Your task to perform on an android device: turn on bluetooth scan Image 0: 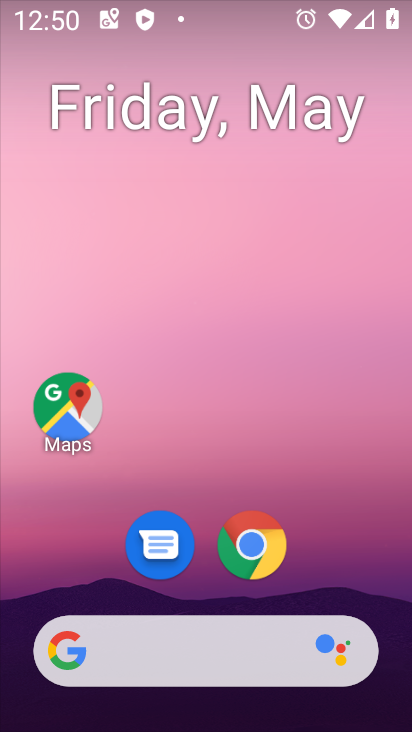
Step 0: drag from (324, 480) to (299, 220)
Your task to perform on an android device: turn on bluetooth scan Image 1: 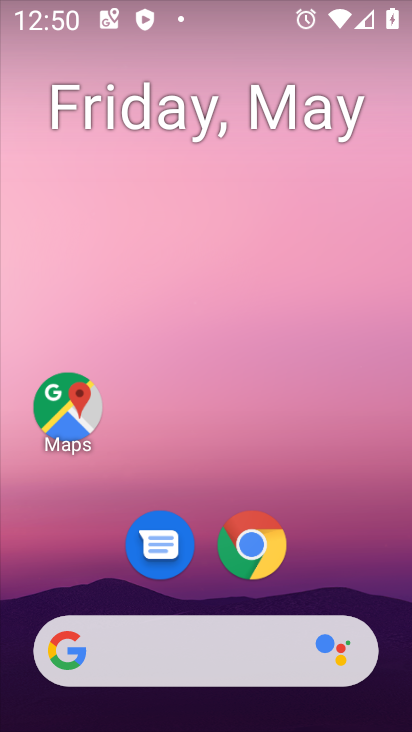
Step 1: drag from (296, 563) to (339, 96)
Your task to perform on an android device: turn on bluetooth scan Image 2: 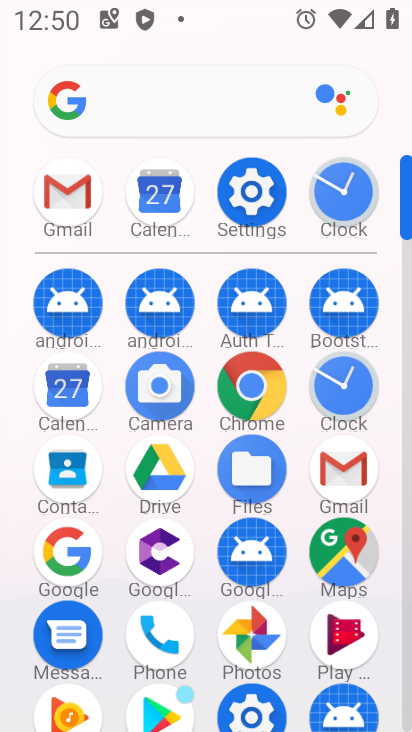
Step 2: click (236, 196)
Your task to perform on an android device: turn on bluetooth scan Image 3: 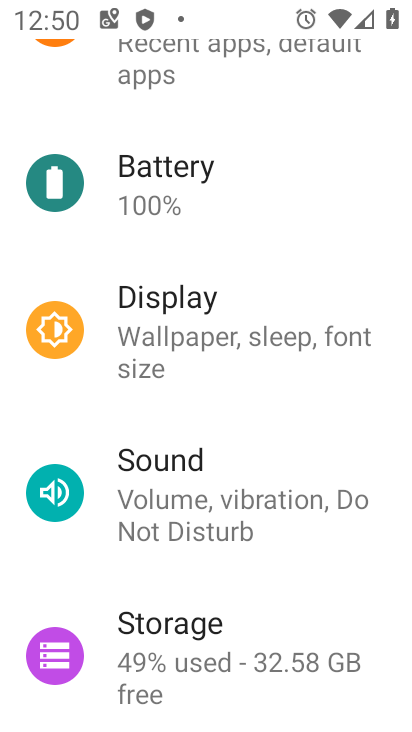
Step 3: drag from (297, 137) to (242, 567)
Your task to perform on an android device: turn on bluetooth scan Image 4: 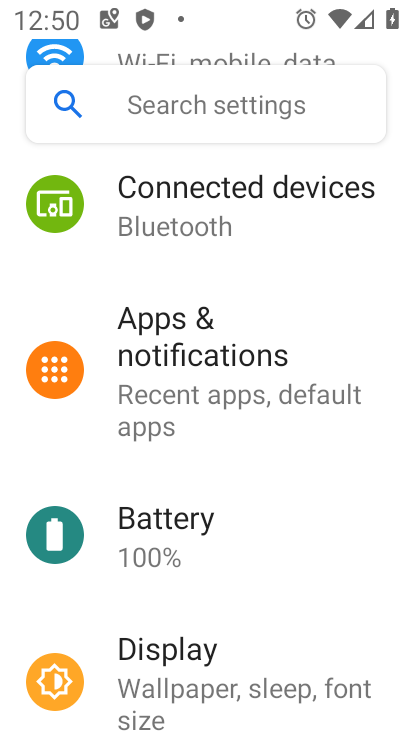
Step 4: click (186, 107)
Your task to perform on an android device: turn on bluetooth scan Image 5: 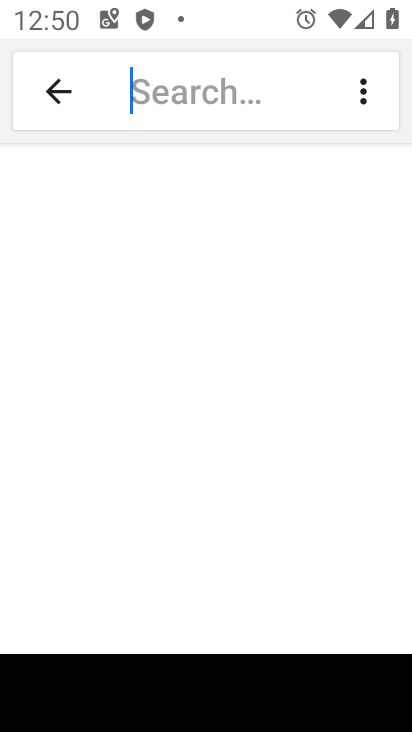
Step 5: type ""
Your task to perform on an android device: turn on bluetooth scan Image 6: 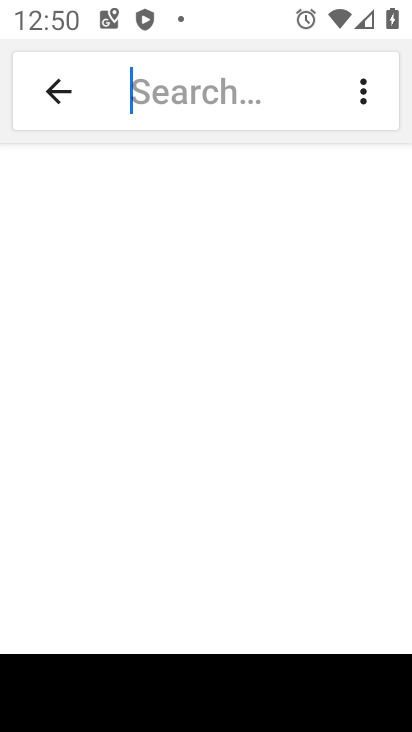
Step 6: type "bluetooth scan"
Your task to perform on an android device: turn on bluetooth scan Image 7: 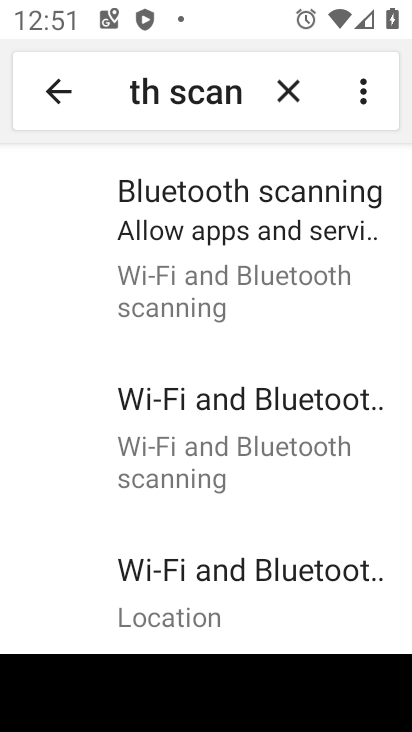
Step 7: click (241, 216)
Your task to perform on an android device: turn on bluetooth scan Image 8: 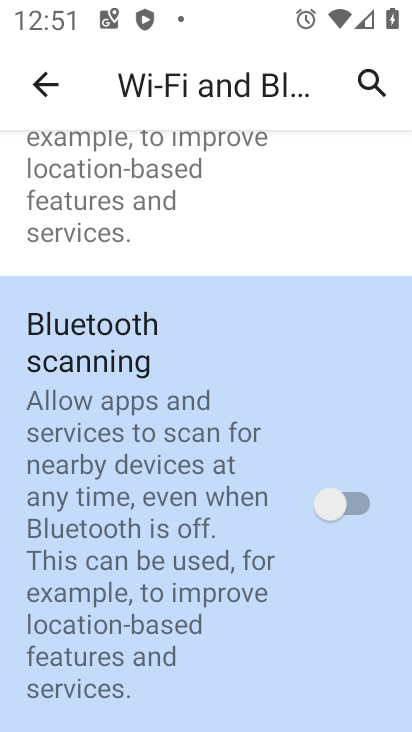
Step 8: click (329, 502)
Your task to perform on an android device: turn on bluetooth scan Image 9: 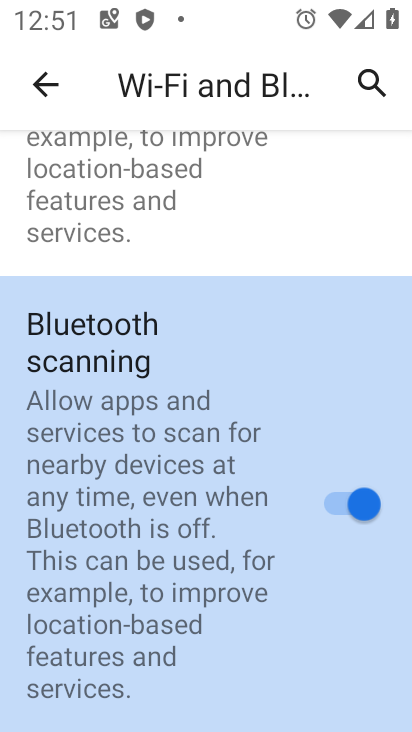
Step 9: task complete